Your task to perform on an android device: Add alienware aurora to the cart on bestbuy Image 0: 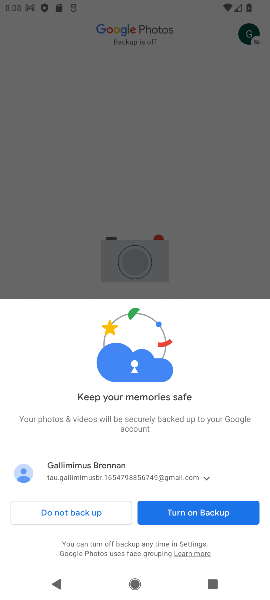
Step 0: press home button
Your task to perform on an android device: Add alienware aurora to the cart on bestbuy Image 1: 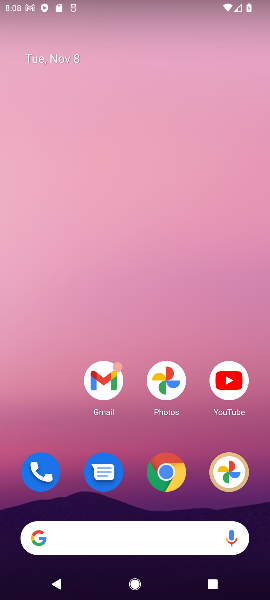
Step 1: click (165, 470)
Your task to perform on an android device: Add alienware aurora to the cart on bestbuy Image 2: 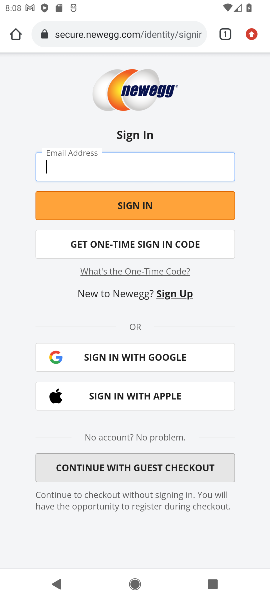
Step 2: click (144, 37)
Your task to perform on an android device: Add alienware aurora to the cart on bestbuy Image 3: 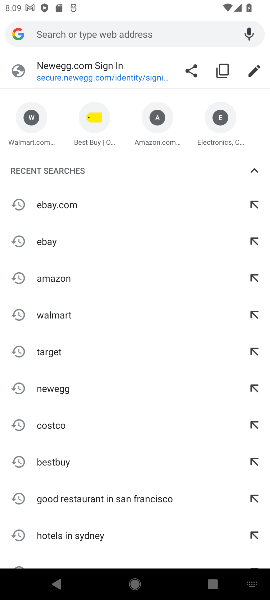
Step 3: click (53, 463)
Your task to perform on an android device: Add alienware aurora to the cart on bestbuy Image 4: 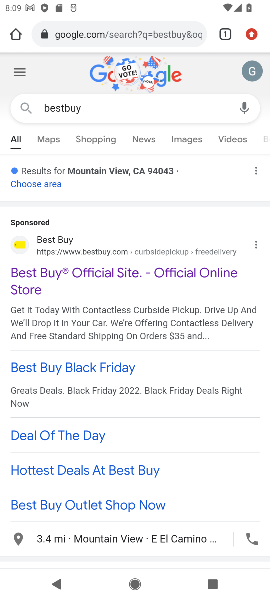
Step 4: click (74, 270)
Your task to perform on an android device: Add alienware aurora to the cart on bestbuy Image 5: 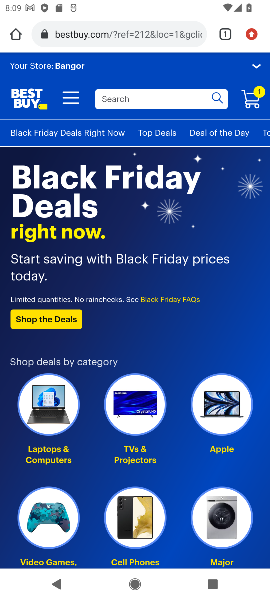
Step 5: click (162, 96)
Your task to perform on an android device: Add alienware aurora to the cart on bestbuy Image 6: 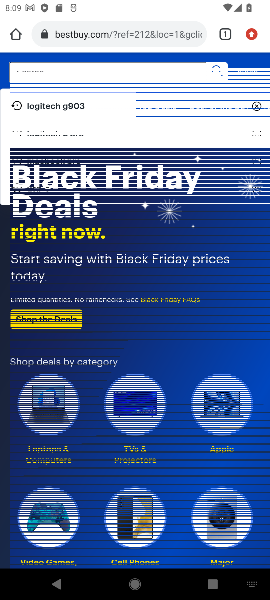
Step 6: type "alienware aurora "
Your task to perform on an android device: Add alienware aurora to the cart on bestbuy Image 7: 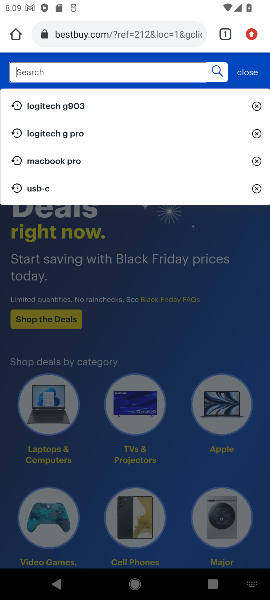
Step 7: press enter
Your task to perform on an android device: Add alienware aurora to the cart on bestbuy Image 8: 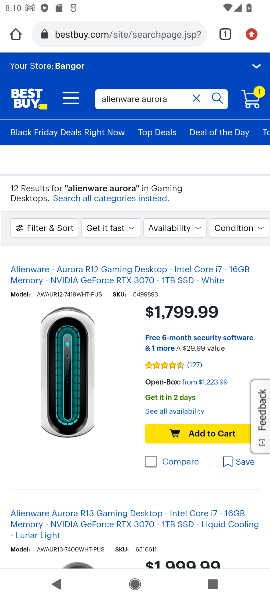
Step 8: click (202, 433)
Your task to perform on an android device: Add alienware aurora to the cart on bestbuy Image 9: 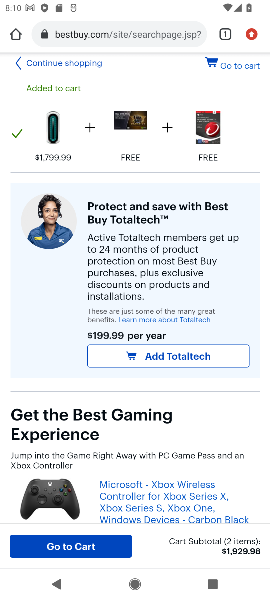
Step 9: click (245, 65)
Your task to perform on an android device: Add alienware aurora to the cart on bestbuy Image 10: 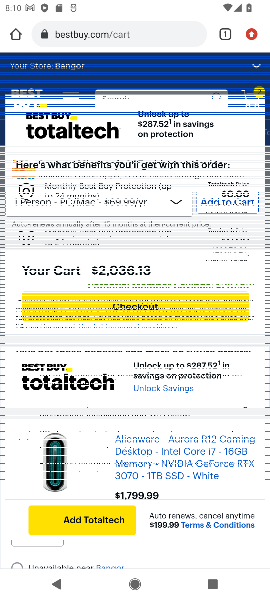
Step 10: click (241, 116)
Your task to perform on an android device: Add alienware aurora to the cart on bestbuy Image 11: 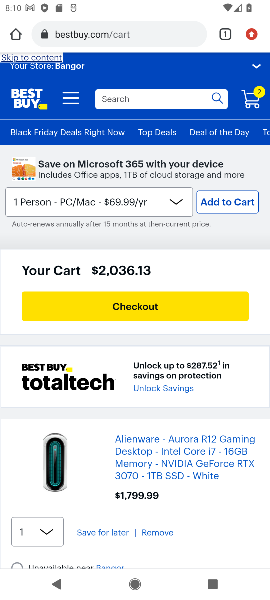
Step 11: task complete